Your task to perform on an android device: show emergency info Image 0: 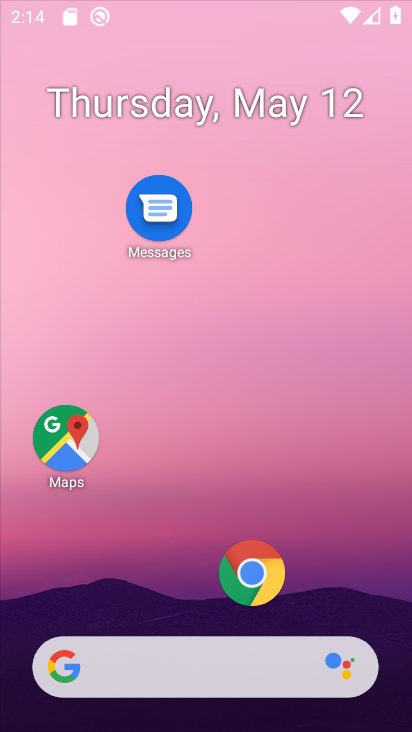
Step 0: click (363, 26)
Your task to perform on an android device: show emergency info Image 1: 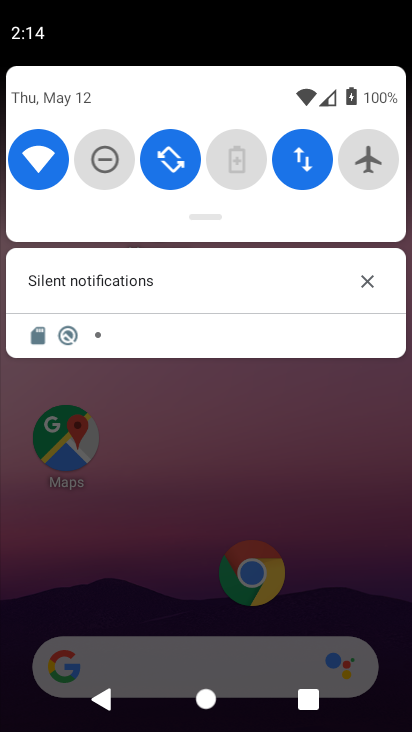
Step 1: click (254, 561)
Your task to perform on an android device: show emergency info Image 2: 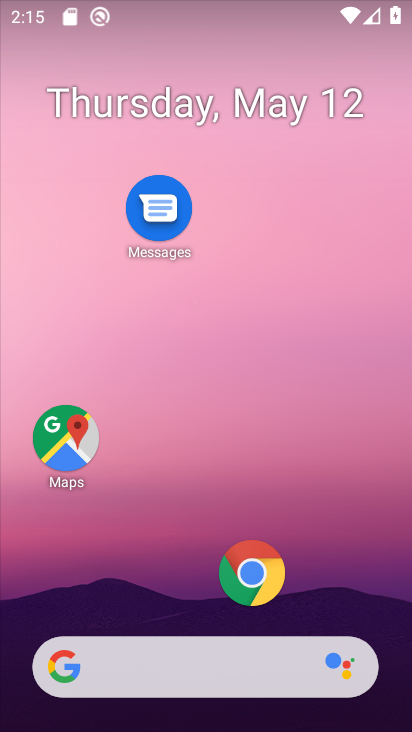
Step 2: drag from (211, 572) to (269, 253)
Your task to perform on an android device: show emergency info Image 3: 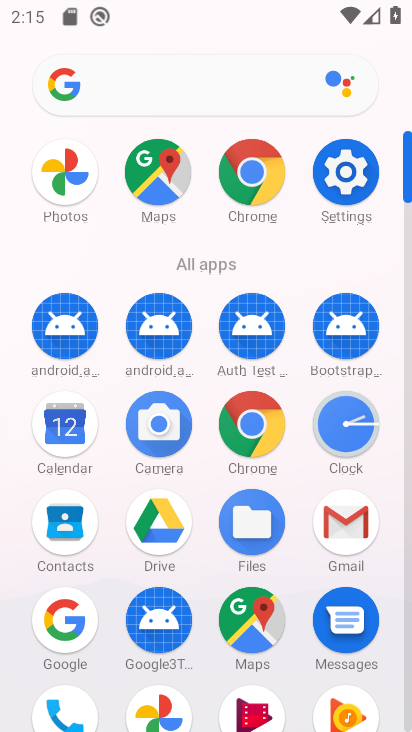
Step 3: click (345, 159)
Your task to perform on an android device: show emergency info Image 4: 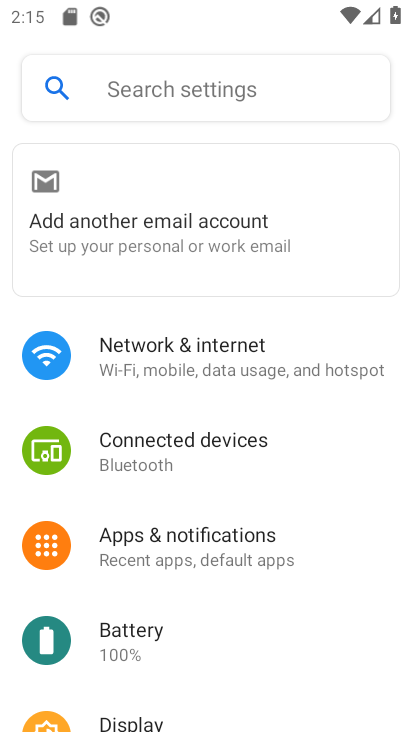
Step 4: drag from (298, 562) to (321, 149)
Your task to perform on an android device: show emergency info Image 5: 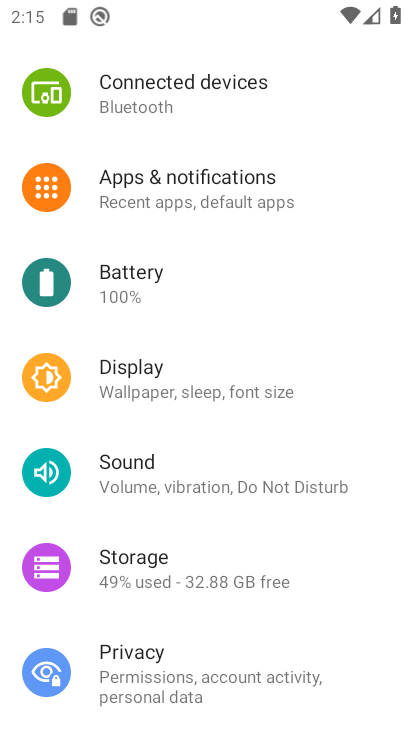
Step 5: drag from (233, 622) to (298, 0)
Your task to perform on an android device: show emergency info Image 6: 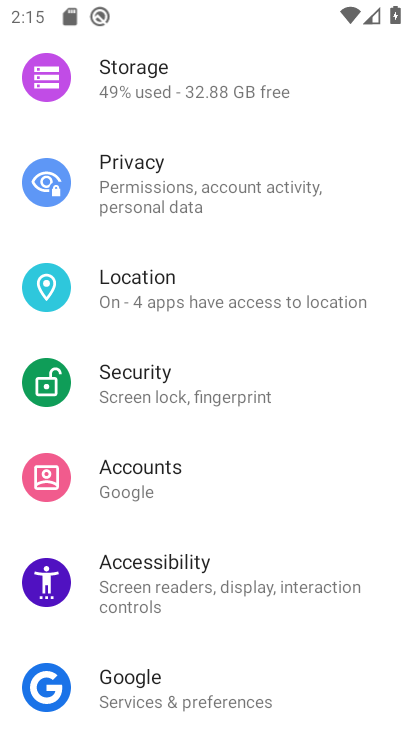
Step 6: drag from (195, 685) to (286, 90)
Your task to perform on an android device: show emergency info Image 7: 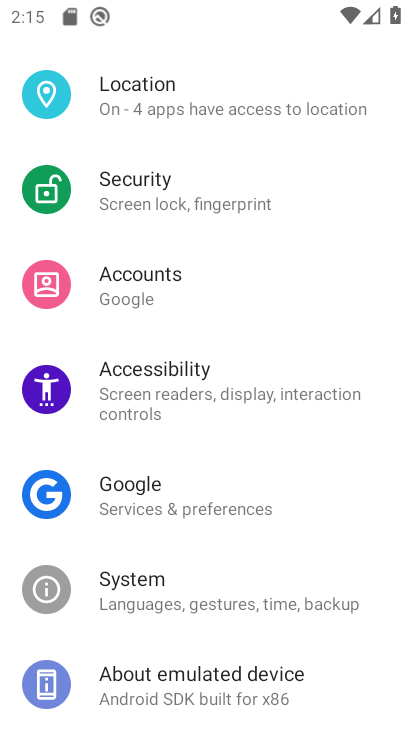
Step 7: click (208, 684)
Your task to perform on an android device: show emergency info Image 8: 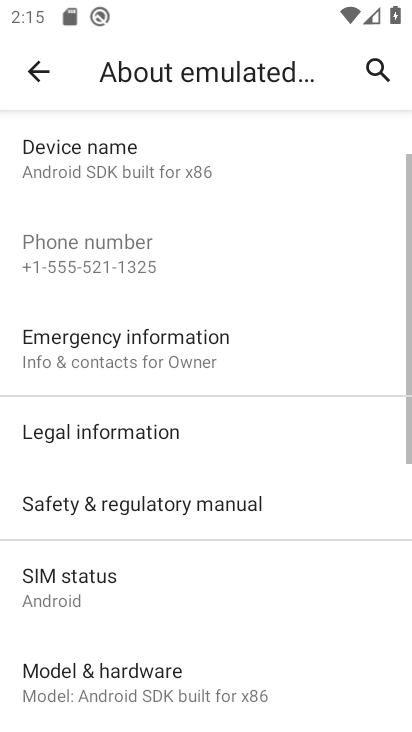
Step 8: drag from (226, 633) to (303, 111)
Your task to perform on an android device: show emergency info Image 9: 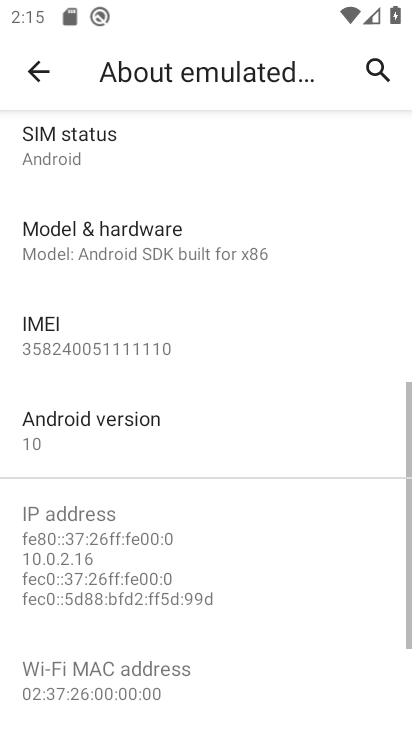
Step 9: drag from (163, 376) to (215, 668)
Your task to perform on an android device: show emergency info Image 10: 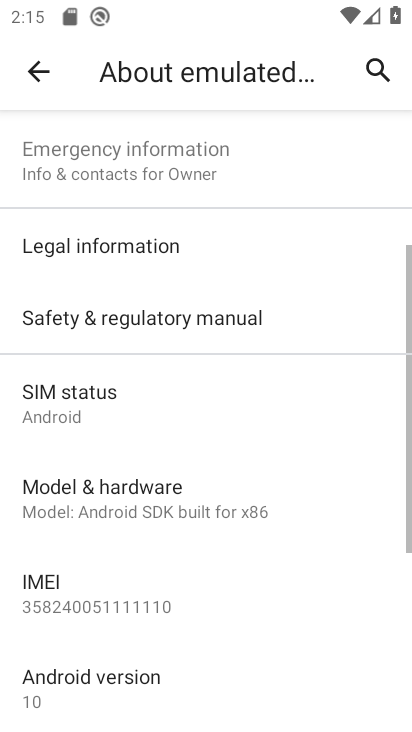
Step 10: click (202, 176)
Your task to perform on an android device: show emergency info Image 11: 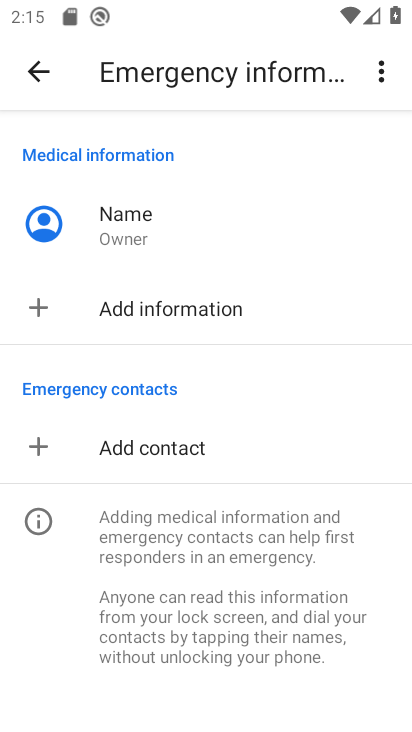
Step 11: task complete